Your task to perform on an android device: Open calendar and show me the first week of next month Image 0: 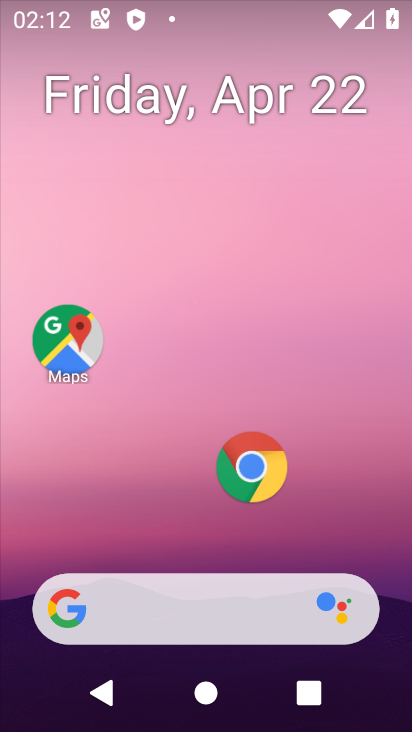
Step 0: drag from (237, 501) to (263, 216)
Your task to perform on an android device: Open calendar and show me the first week of next month Image 1: 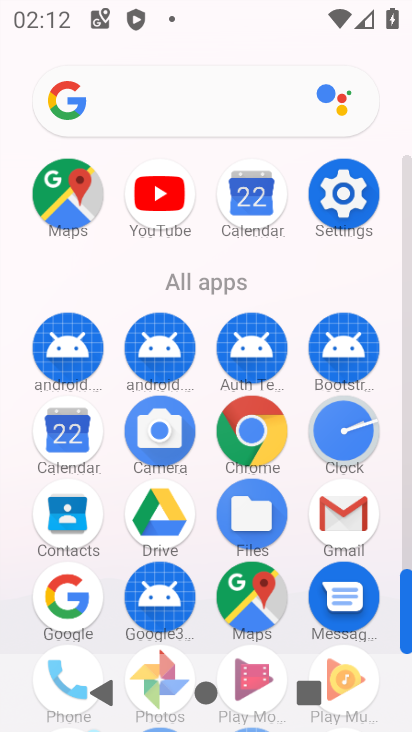
Step 1: click (56, 435)
Your task to perform on an android device: Open calendar and show me the first week of next month Image 2: 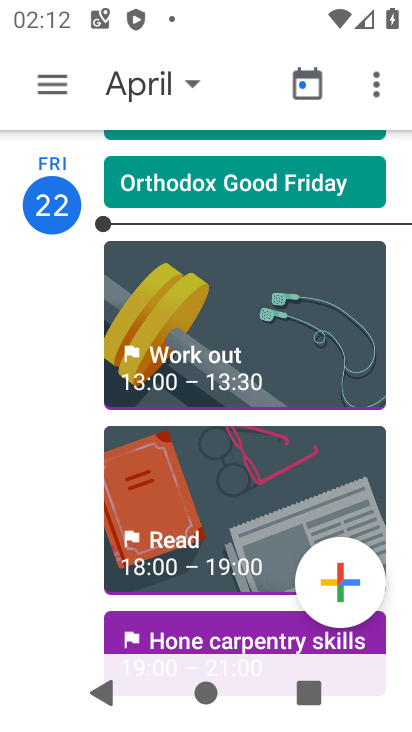
Step 2: click (145, 82)
Your task to perform on an android device: Open calendar and show me the first week of next month Image 3: 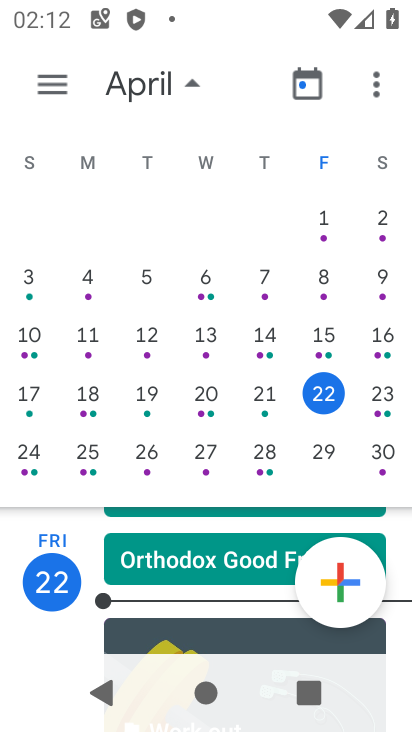
Step 3: drag from (387, 317) to (17, 317)
Your task to perform on an android device: Open calendar and show me the first week of next month Image 4: 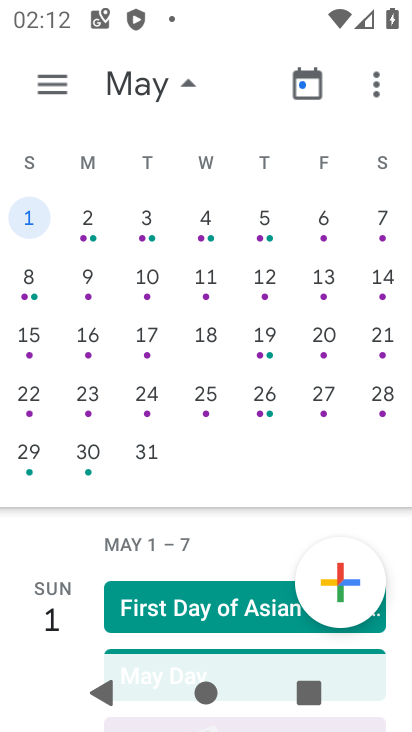
Step 4: click (103, 224)
Your task to perform on an android device: Open calendar and show me the first week of next month Image 5: 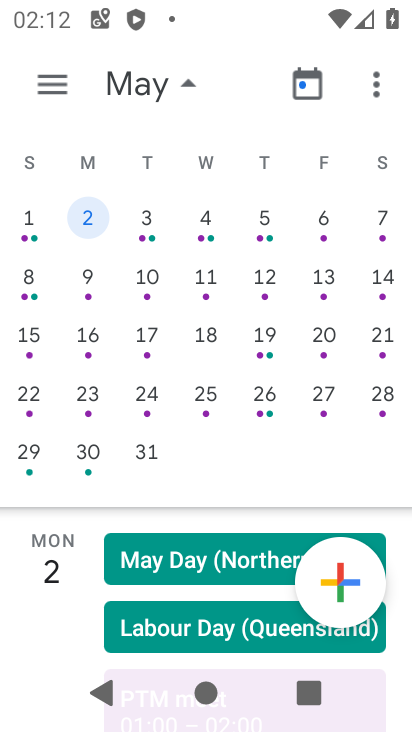
Step 5: click (44, 82)
Your task to perform on an android device: Open calendar and show me the first week of next month Image 6: 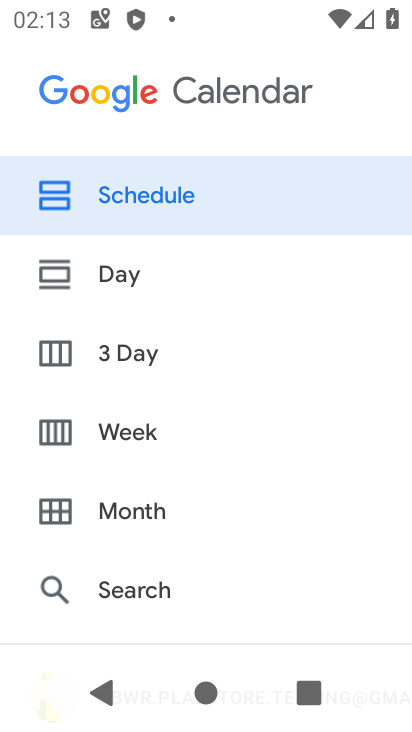
Step 6: click (165, 433)
Your task to perform on an android device: Open calendar and show me the first week of next month Image 7: 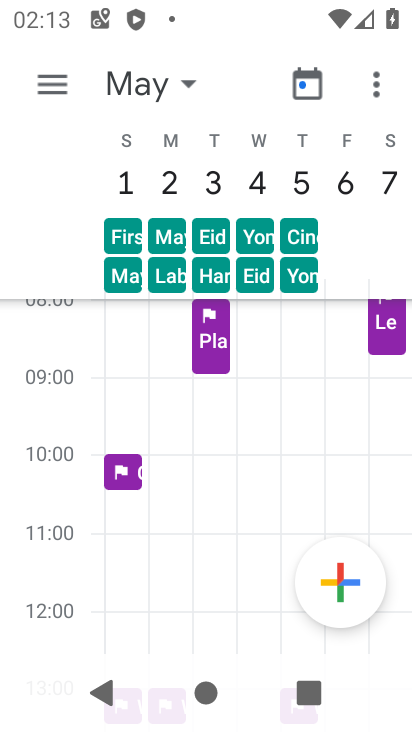
Step 7: task complete